Your task to perform on an android device: Open Google Maps and go to "Timeline" Image 0: 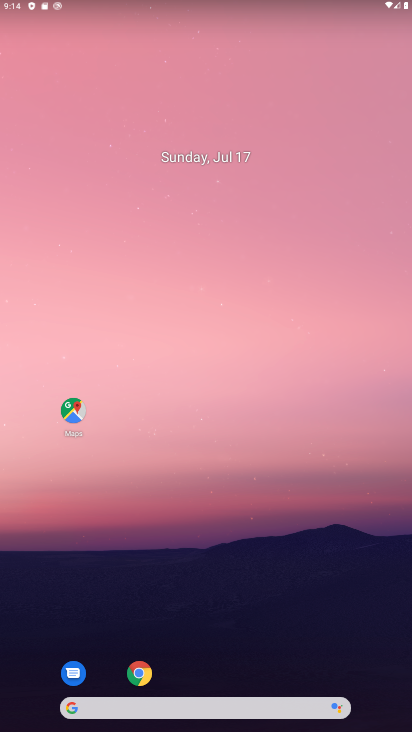
Step 0: click (145, 672)
Your task to perform on an android device: Open Google Maps and go to "Timeline" Image 1: 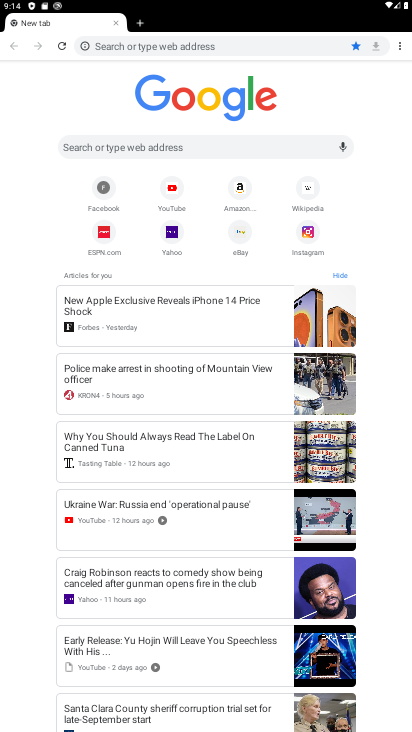
Step 1: click (242, 229)
Your task to perform on an android device: Open Google Maps and go to "Timeline" Image 2: 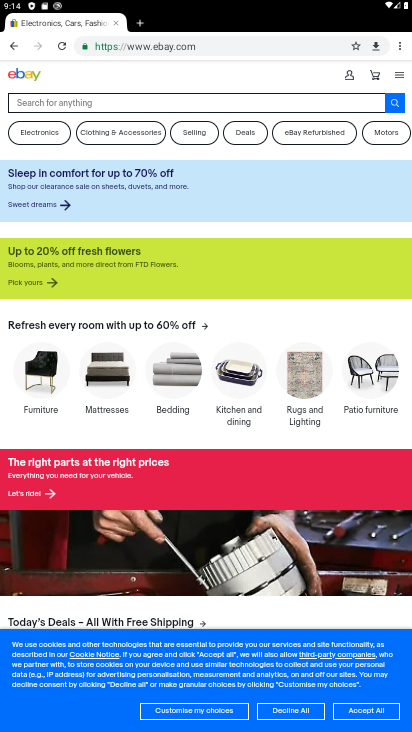
Step 2: press home button
Your task to perform on an android device: Open Google Maps and go to "Timeline" Image 3: 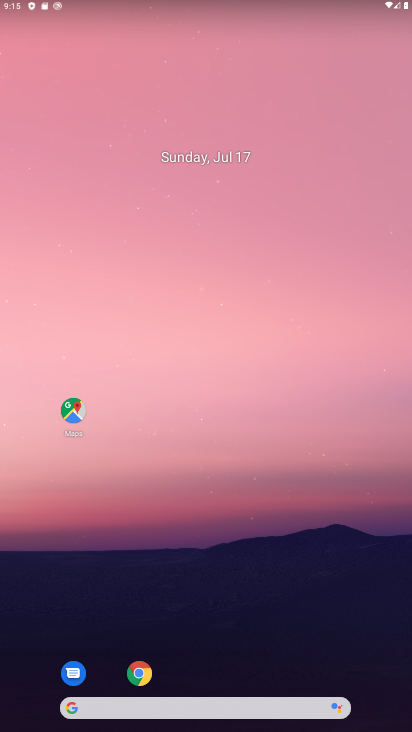
Step 3: click (72, 403)
Your task to perform on an android device: Open Google Maps and go to "Timeline" Image 4: 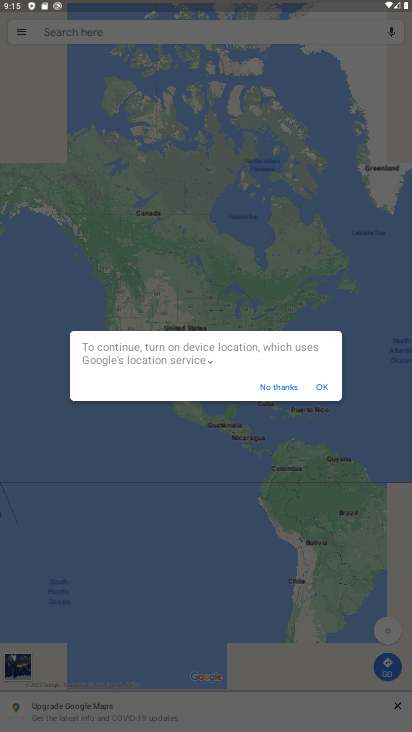
Step 4: click (322, 382)
Your task to perform on an android device: Open Google Maps and go to "Timeline" Image 5: 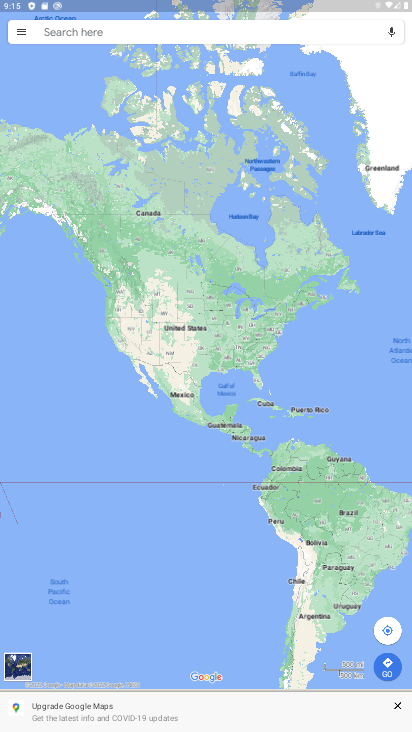
Step 5: click (22, 34)
Your task to perform on an android device: Open Google Maps and go to "Timeline" Image 6: 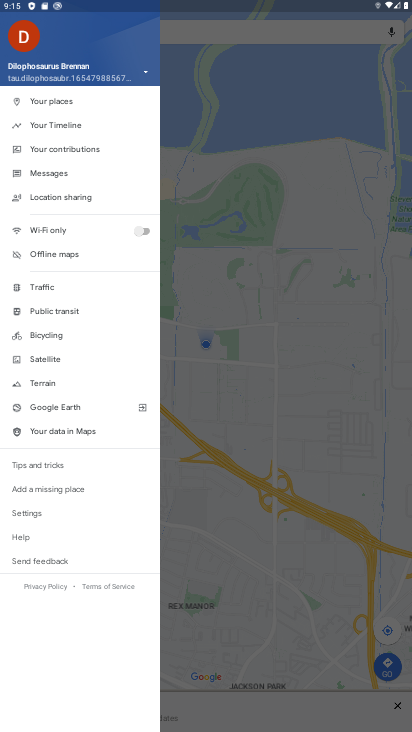
Step 6: click (43, 127)
Your task to perform on an android device: Open Google Maps and go to "Timeline" Image 7: 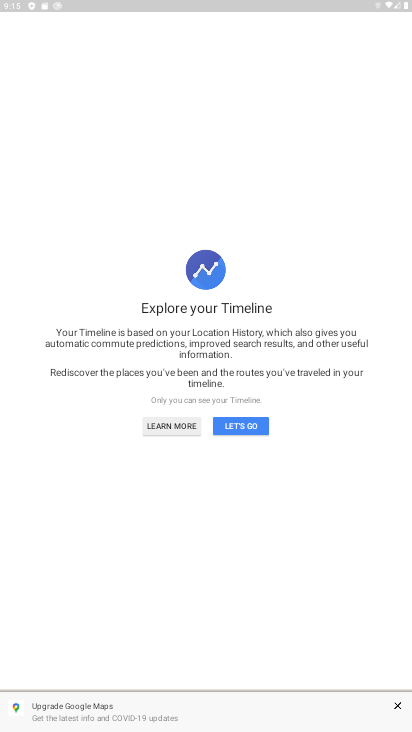
Step 7: click (245, 430)
Your task to perform on an android device: Open Google Maps and go to "Timeline" Image 8: 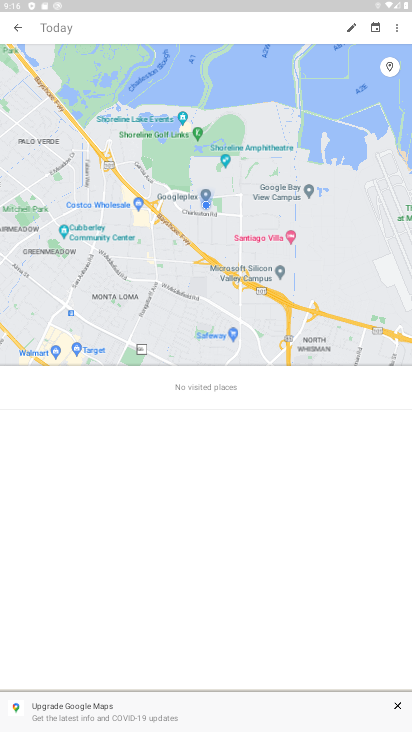
Step 8: task complete